Your task to perform on an android device: Go to wifi settings Image 0: 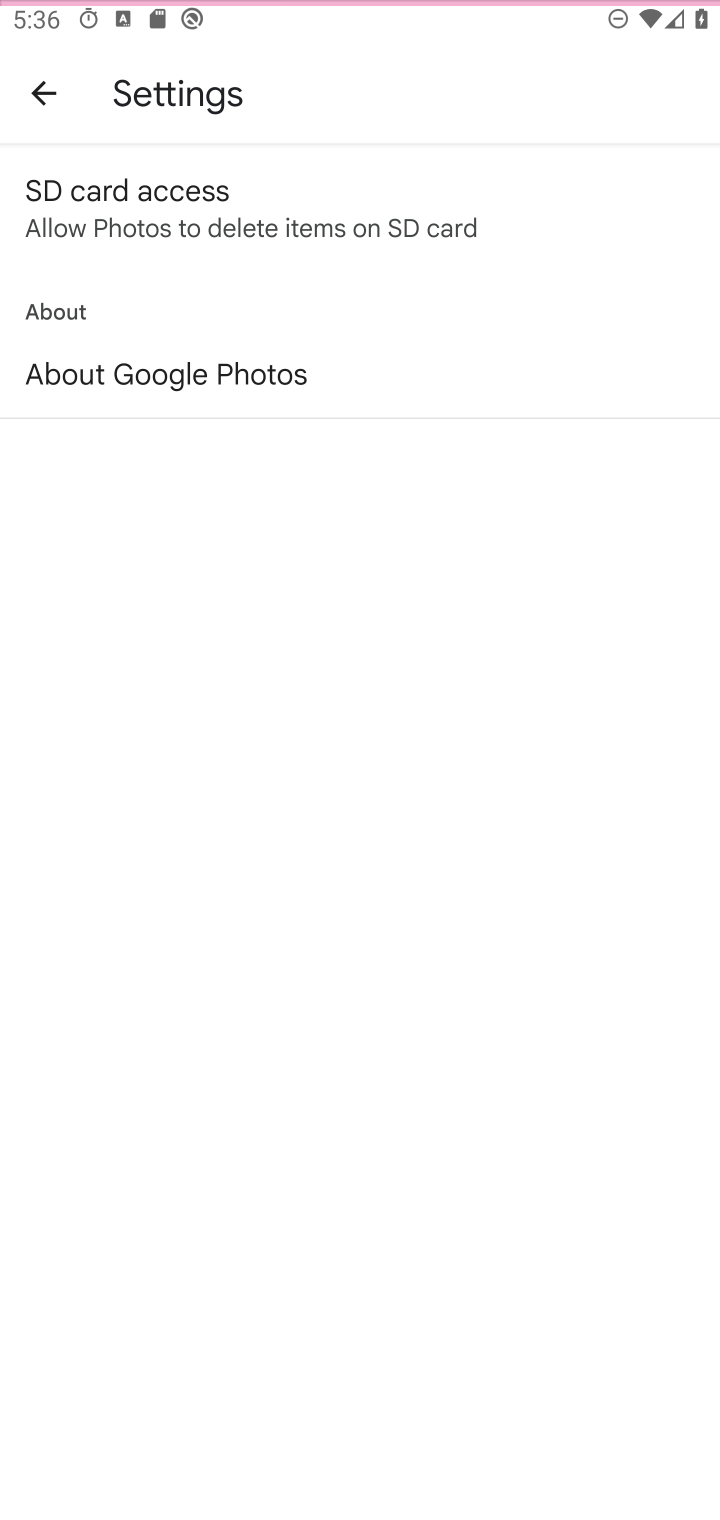
Step 0: press home button
Your task to perform on an android device: Go to wifi settings Image 1: 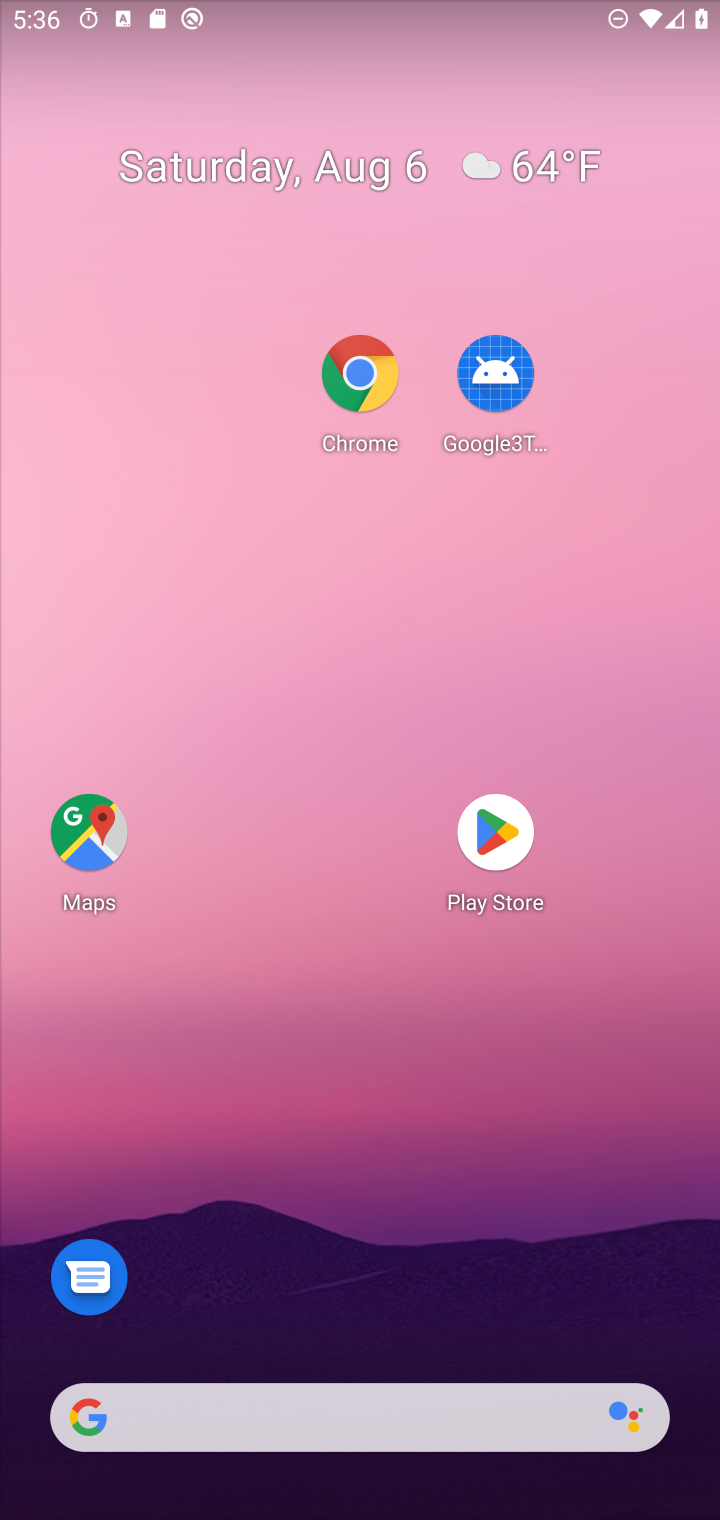
Step 1: drag from (304, 1403) to (123, 30)
Your task to perform on an android device: Go to wifi settings Image 2: 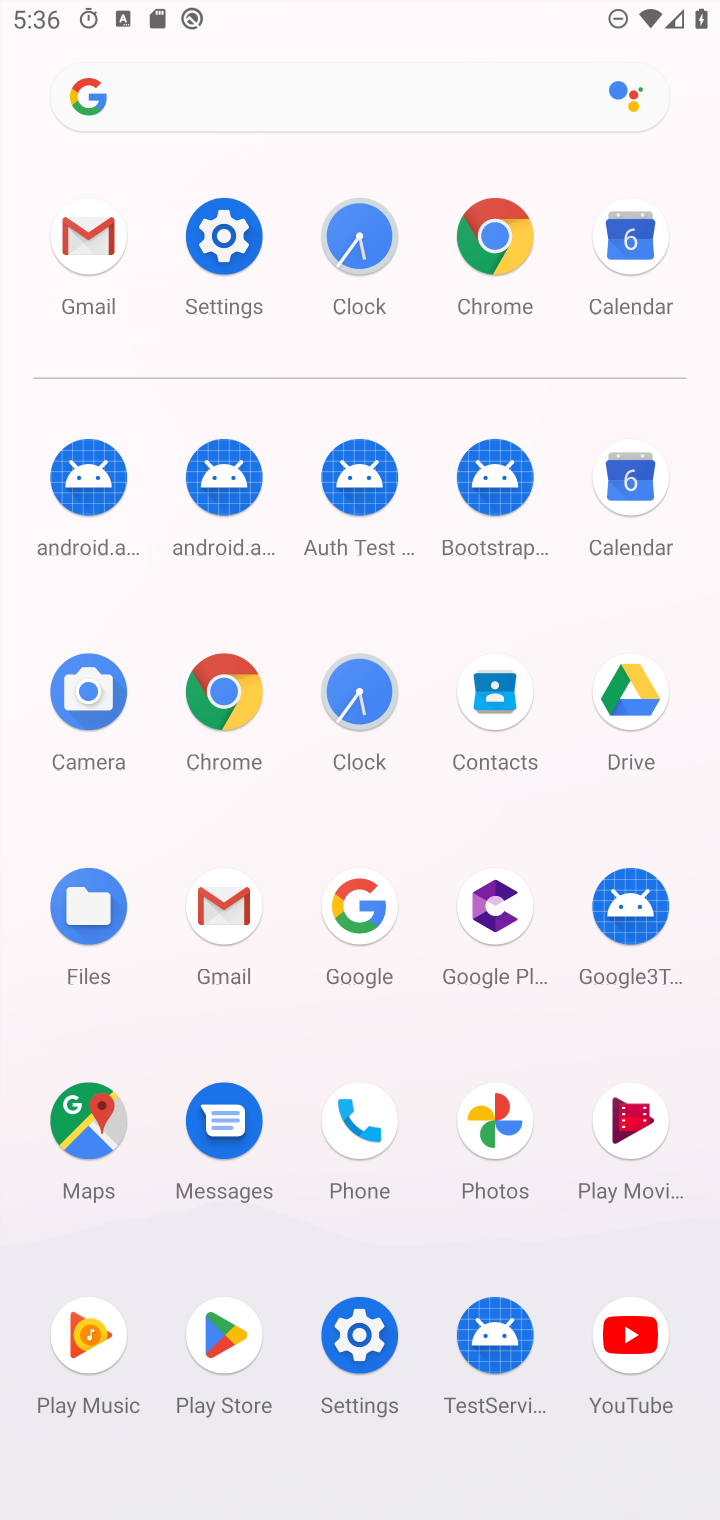
Step 2: click (216, 212)
Your task to perform on an android device: Go to wifi settings Image 3: 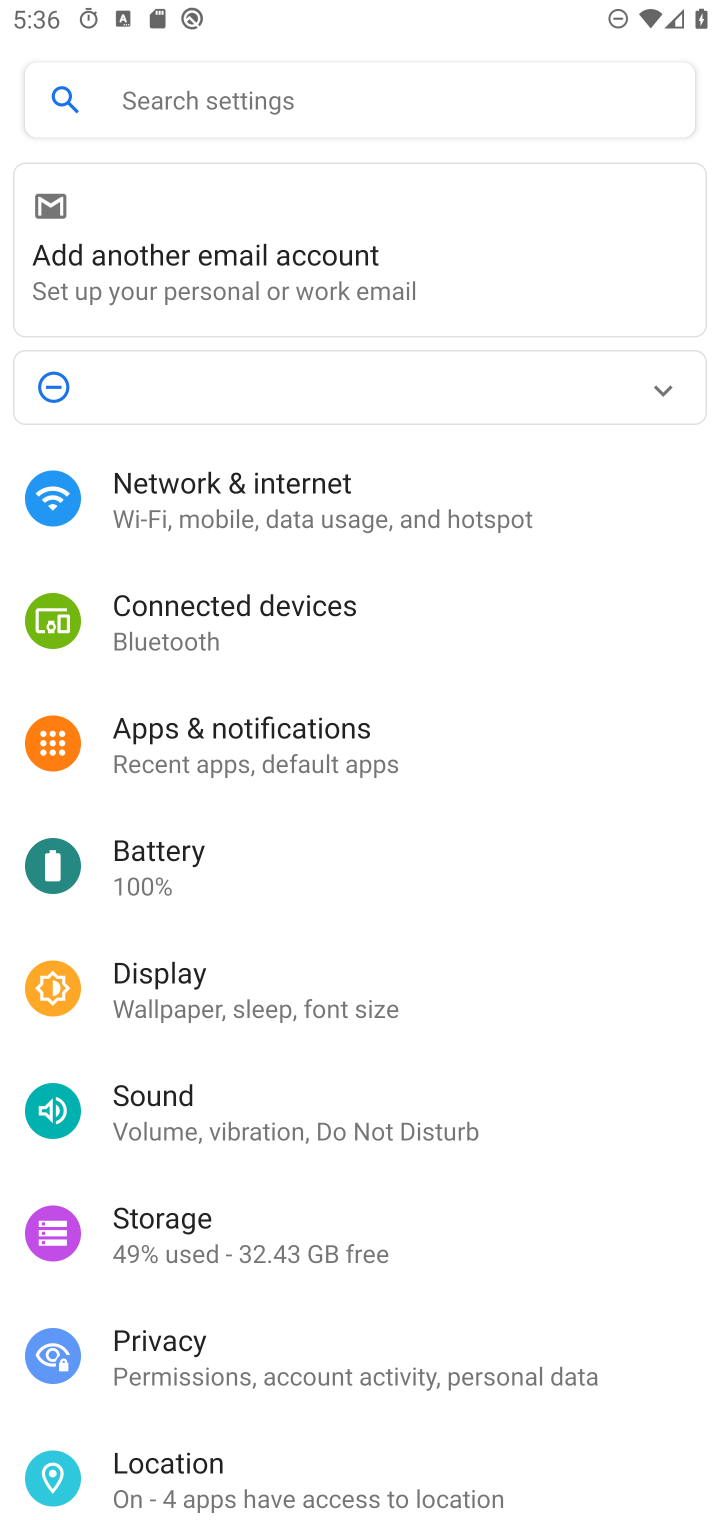
Step 3: click (282, 497)
Your task to perform on an android device: Go to wifi settings Image 4: 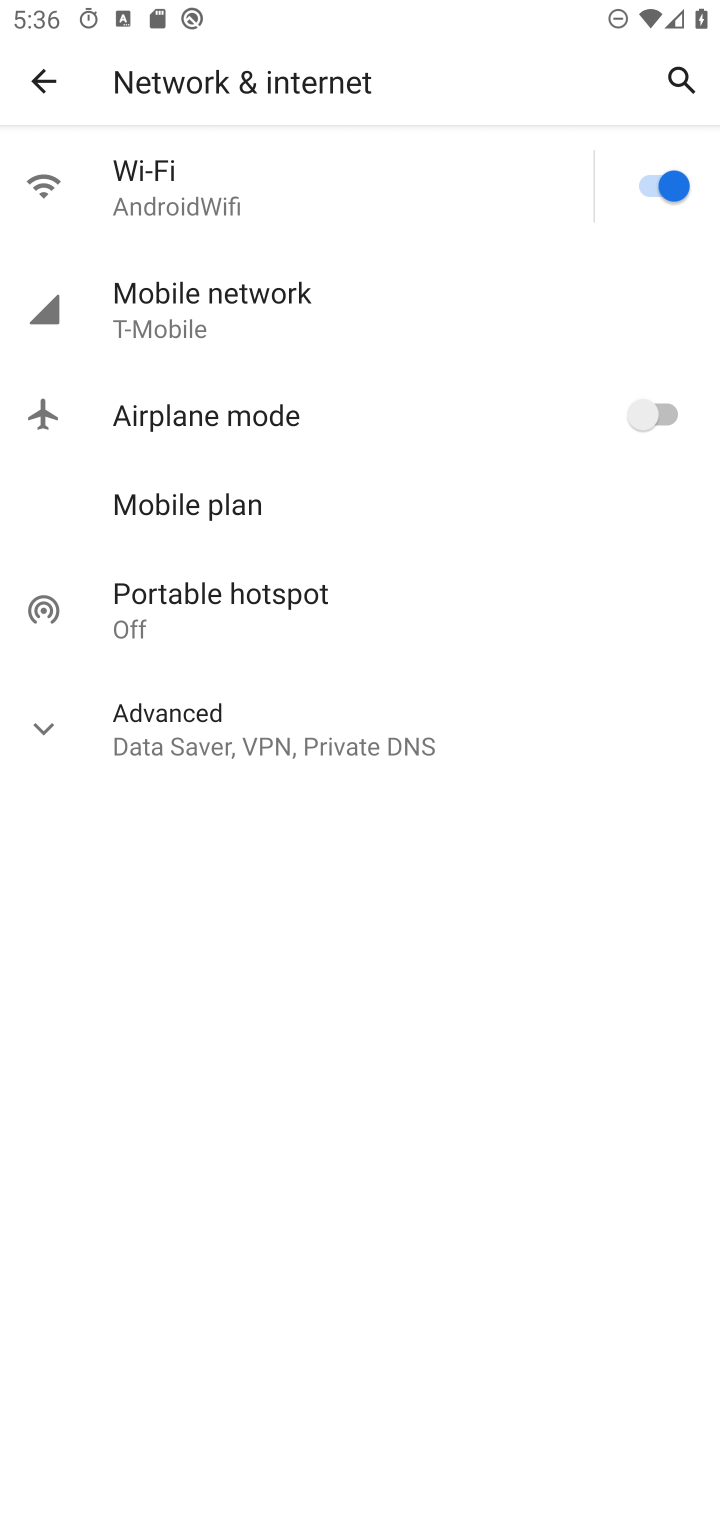
Step 4: click (275, 182)
Your task to perform on an android device: Go to wifi settings Image 5: 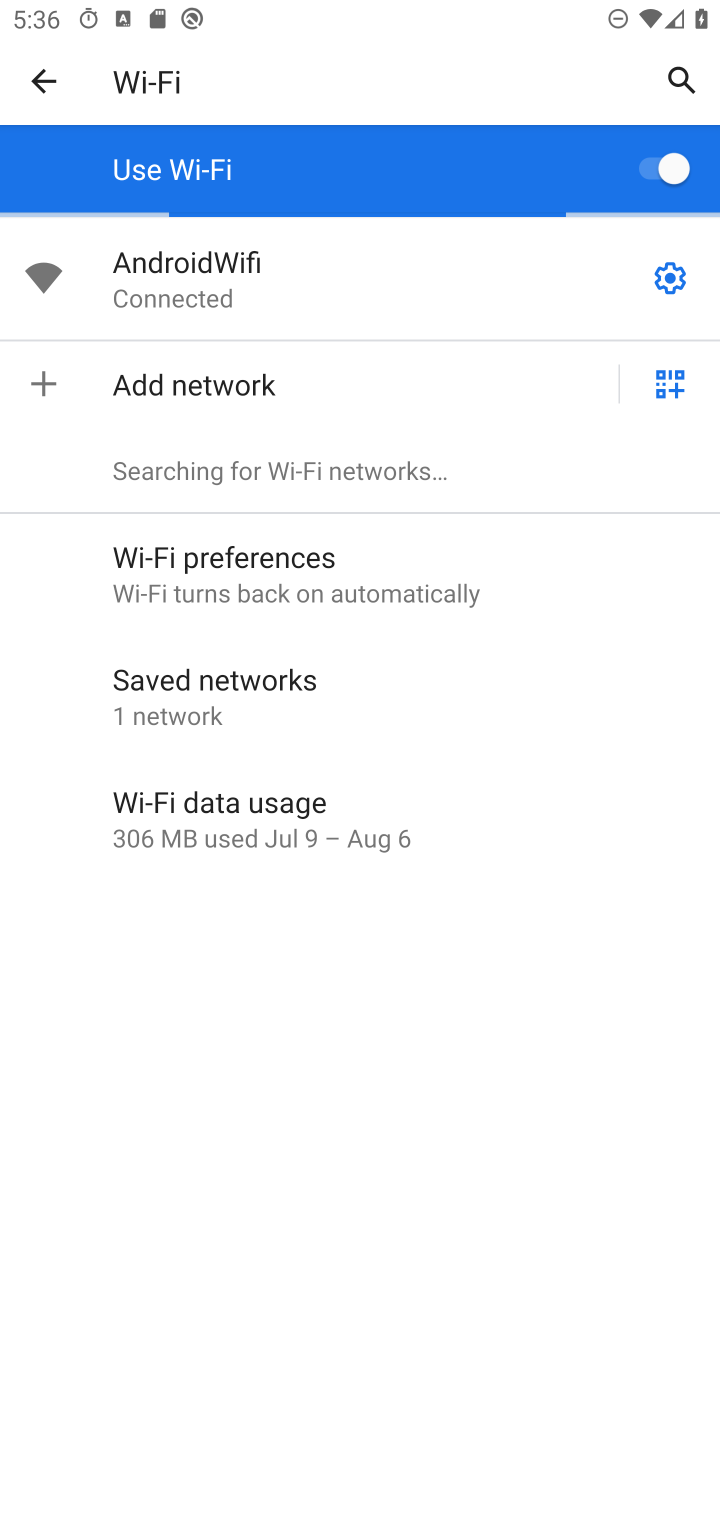
Step 5: task complete